Your task to perform on an android device: Toggle the flashlight Image 0: 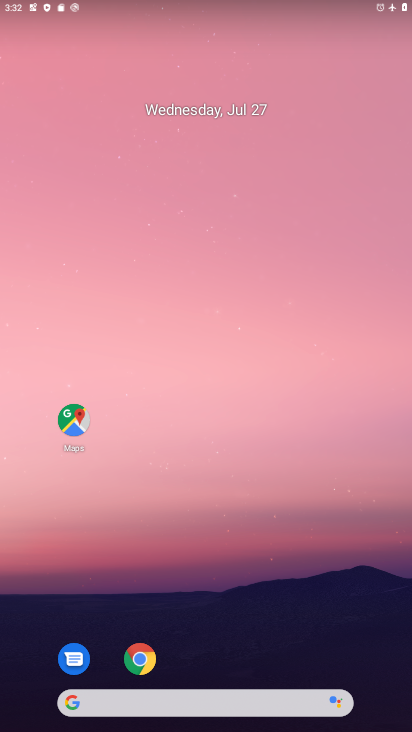
Step 0: drag from (279, 625) to (247, 109)
Your task to perform on an android device: Toggle the flashlight Image 1: 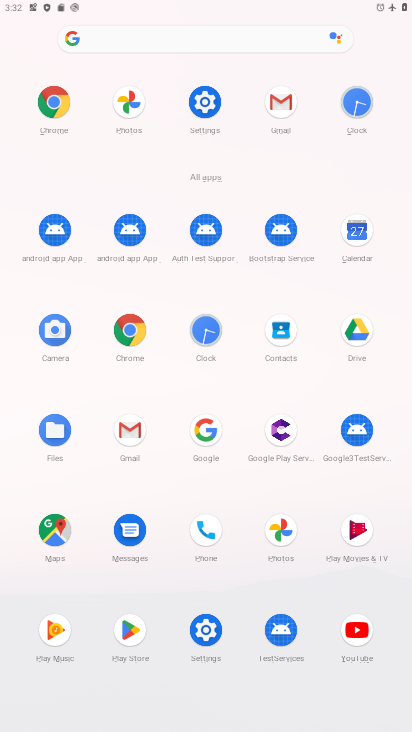
Step 1: drag from (290, 1) to (296, 591)
Your task to perform on an android device: Toggle the flashlight Image 2: 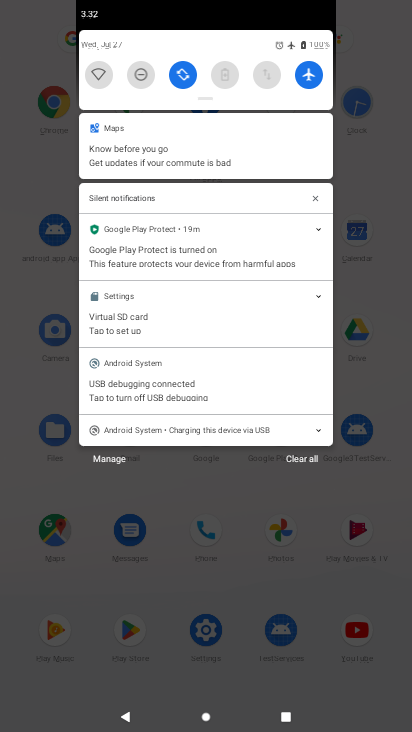
Step 2: drag from (204, 91) to (200, 453)
Your task to perform on an android device: Toggle the flashlight Image 3: 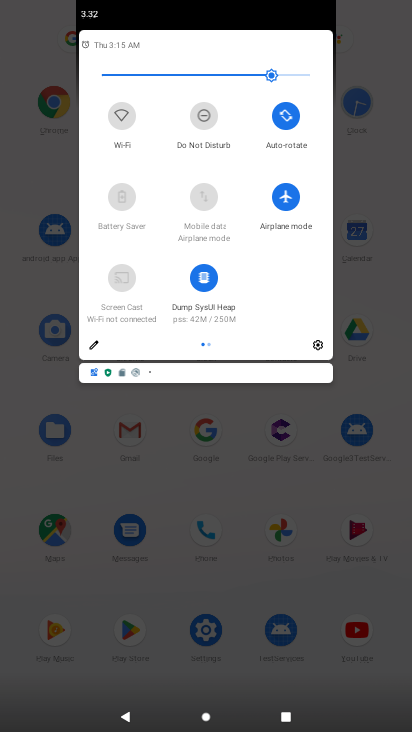
Step 3: click (95, 340)
Your task to perform on an android device: Toggle the flashlight Image 4: 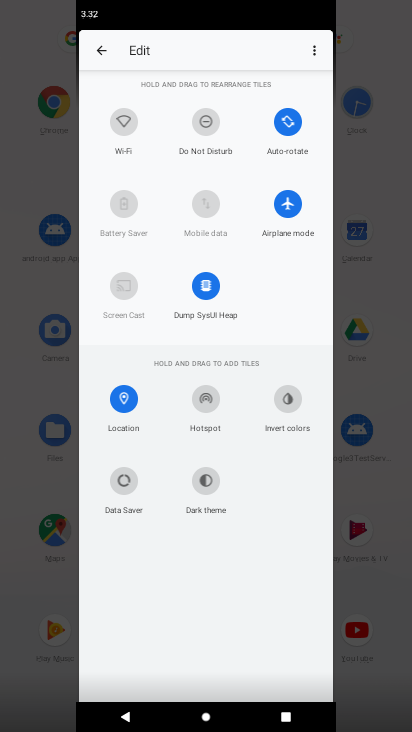
Step 4: task complete